Your task to perform on an android device: Open settings on Google Maps Image 0: 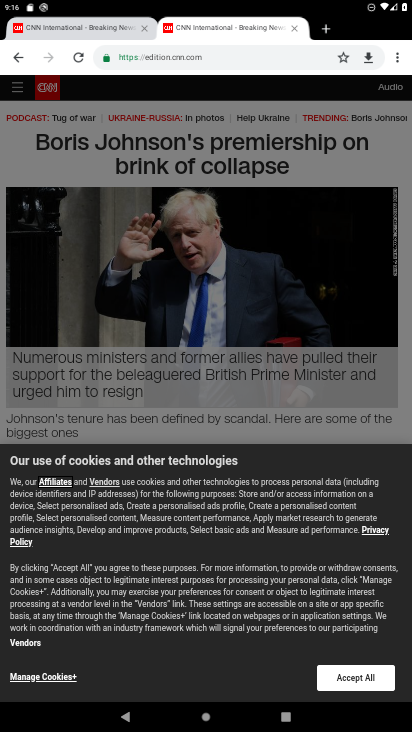
Step 0: press home button
Your task to perform on an android device: Open settings on Google Maps Image 1: 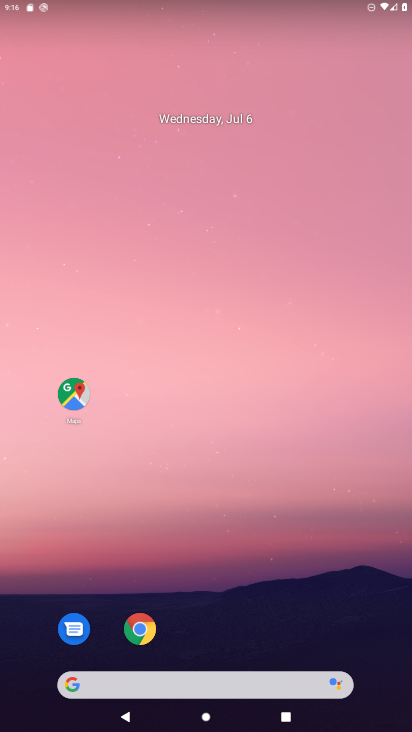
Step 1: drag from (306, 693) to (287, 286)
Your task to perform on an android device: Open settings on Google Maps Image 2: 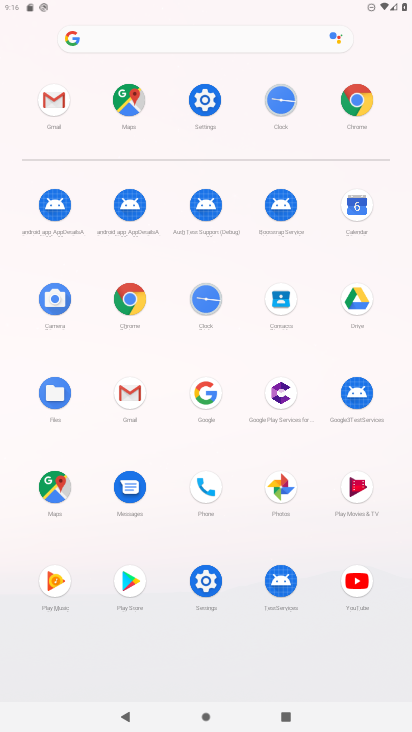
Step 2: click (64, 488)
Your task to perform on an android device: Open settings on Google Maps Image 3: 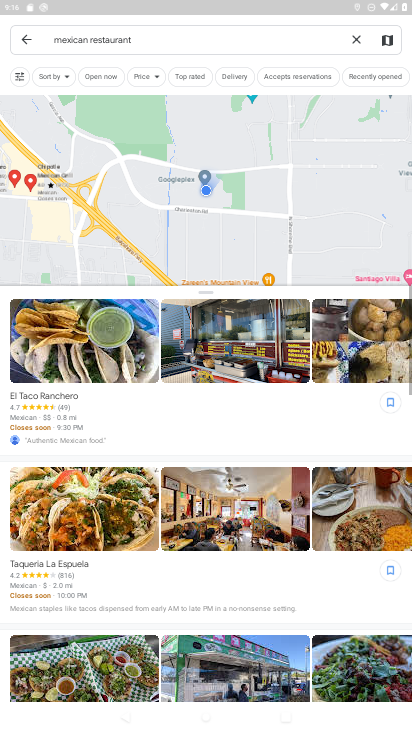
Step 3: press back button
Your task to perform on an android device: Open settings on Google Maps Image 4: 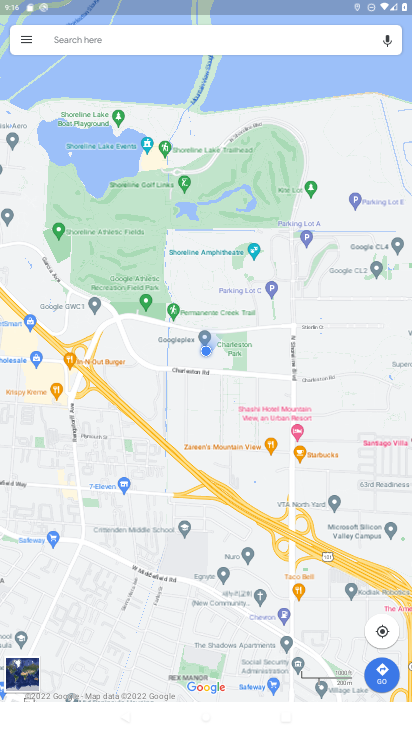
Step 4: click (25, 40)
Your task to perform on an android device: Open settings on Google Maps Image 5: 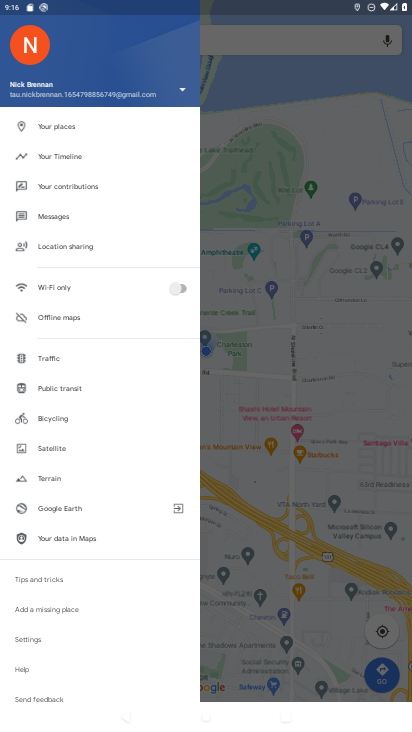
Step 5: click (91, 155)
Your task to perform on an android device: Open settings on Google Maps Image 6: 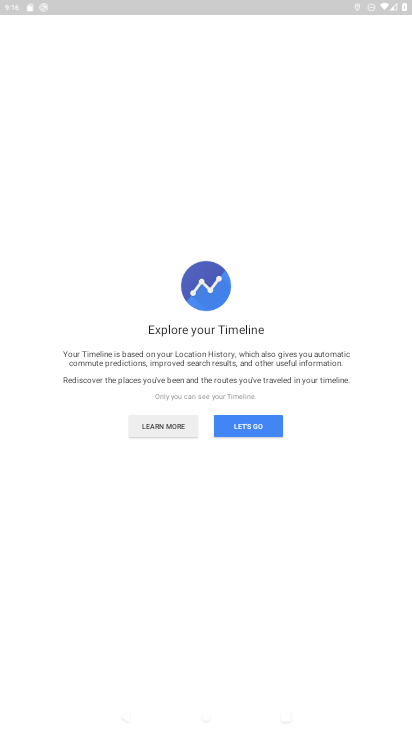
Step 6: click (243, 428)
Your task to perform on an android device: Open settings on Google Maps Image 7: 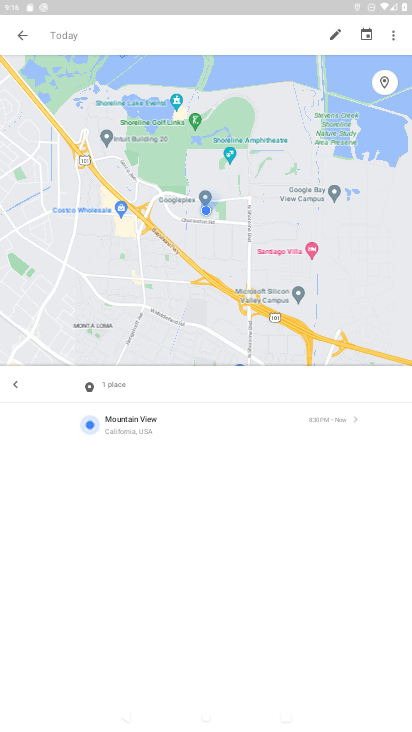
Step 7: click (385, 33)
Your task to perform on an android device: Open settings on Google Maps Image 8: 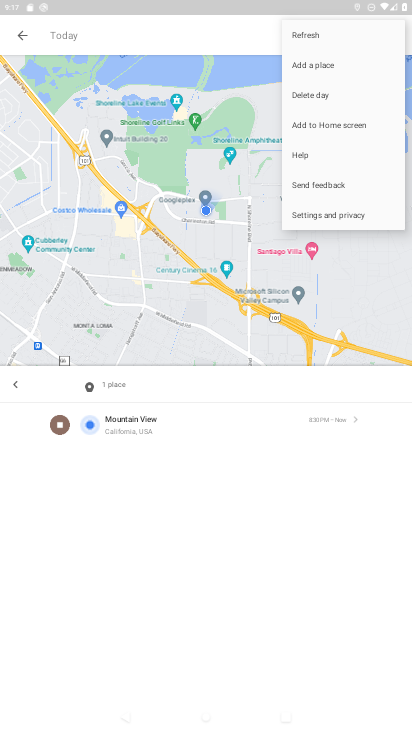
Step 8: click (337, 216)
Your task to perform on an android device: Open settings on Google Maps Image 9: 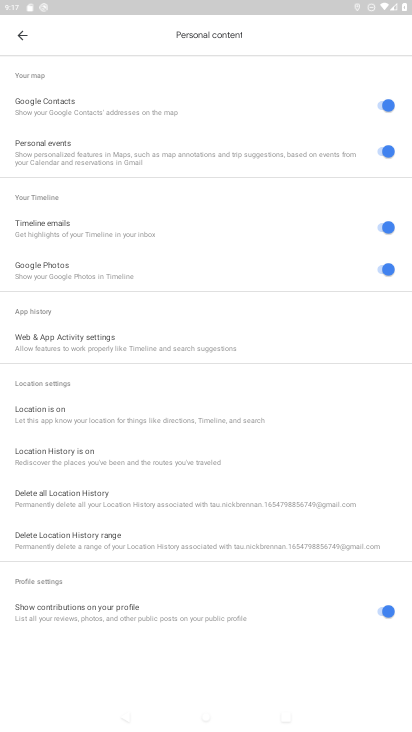
Step 9: task complete